Your task to perform on an android device: Go to display settings Image 0: 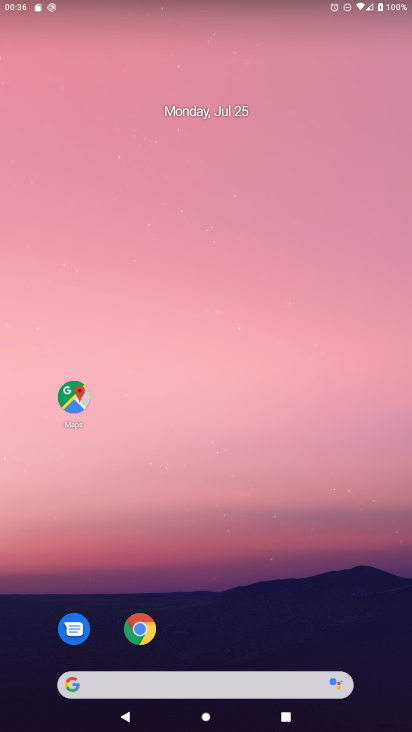
Step 0: drag from (148, 526) to (265, 15)
Your task to perform on an android device: Go to display settings Image 1: 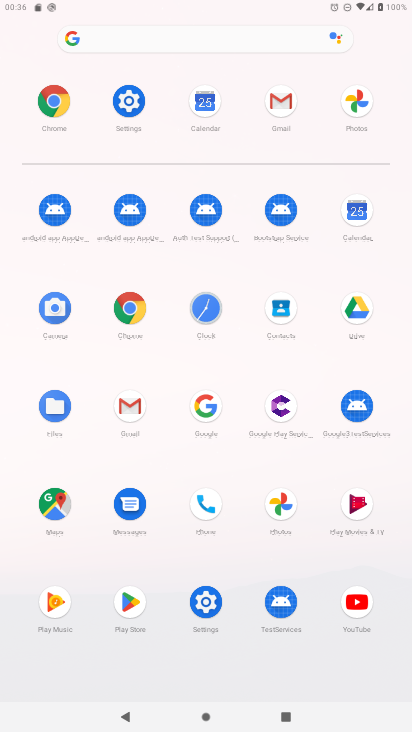
Step 1: click (191, 597)
Your task to perform on an android device: Go to display settings Image 2: 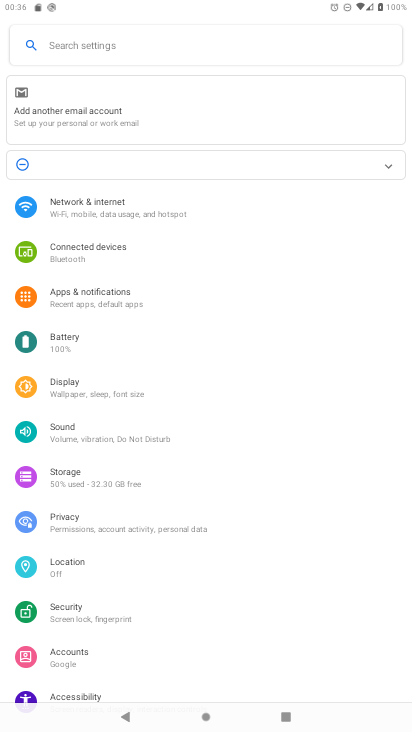
Step 2: click (100, 388)
Your task to perform on an android device: Go to display settings Image 3: 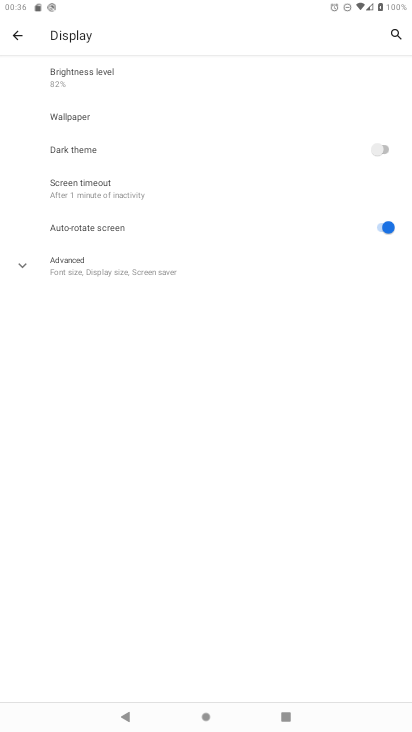
Step 3: task complete